Your task to perform on an android device: delete browsing data in the chrome app Image 0: 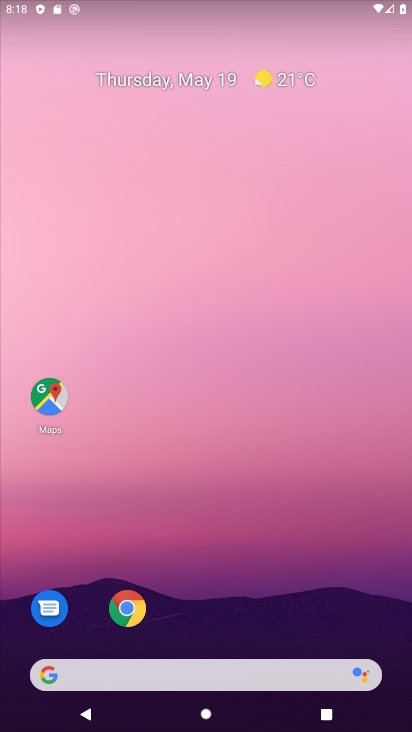
Step 0: click (127, 608)
Your task to perform on an android device: delete browsing data in the chrome app Image 1: 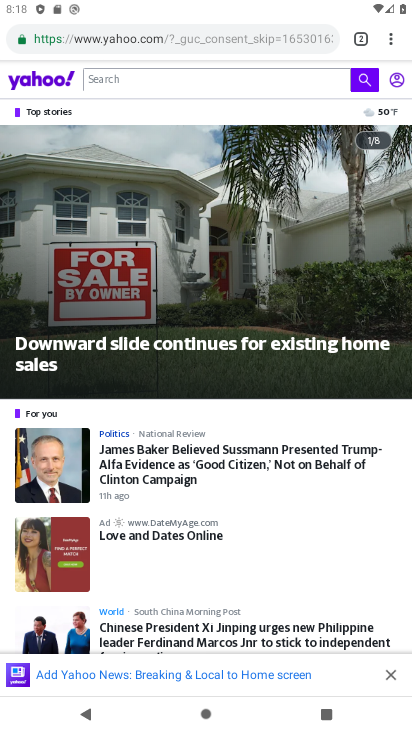
Step 1: click (393, 38)
Your task to perform on an android device: delete browsing data in the chrome app Image 2: 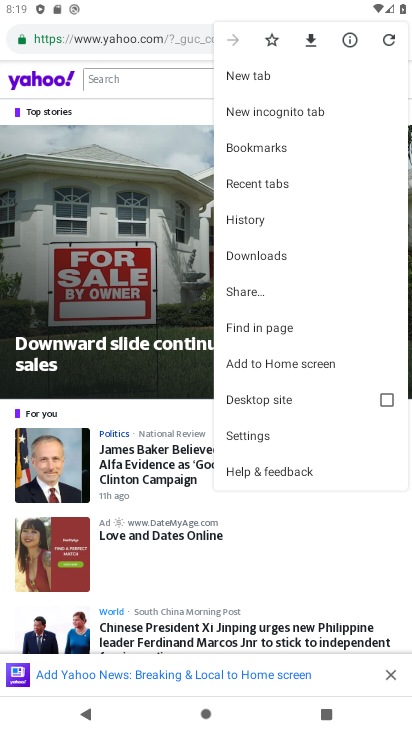
Step 2: click (251, 216)
Your task to perform on an android device: delete browsing data in the chrome app Image 3: 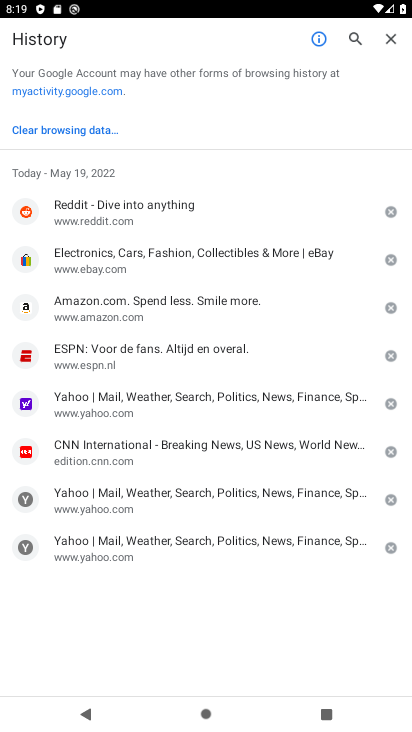
Step 3: click (80, 123)
Your task to perform on an android device: delete browsing data in the chrome app Image 4: 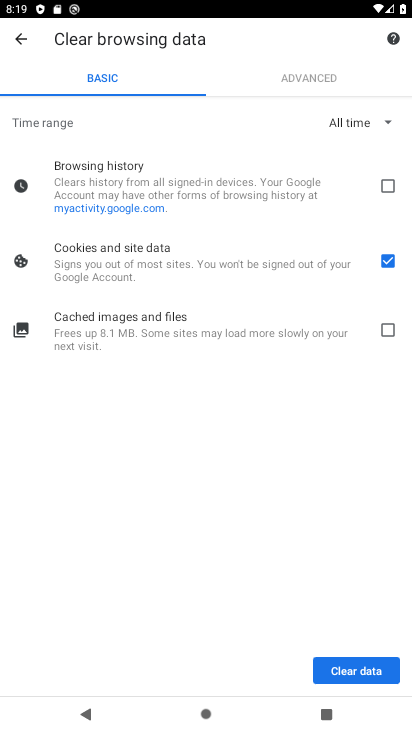
Step 4: click (352, 663)
Your task to perform on an android device: delete browsing data in the chrome app Image 5: 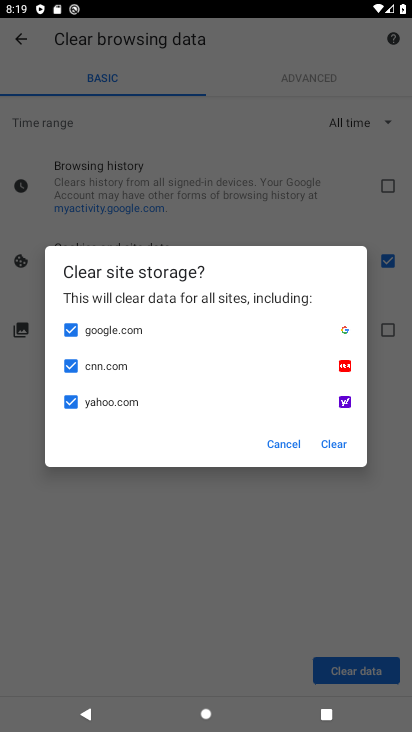
Step 5: click (335, 444)
Your task to perform on an android device: delete browsing data in the chrome app Image 6: 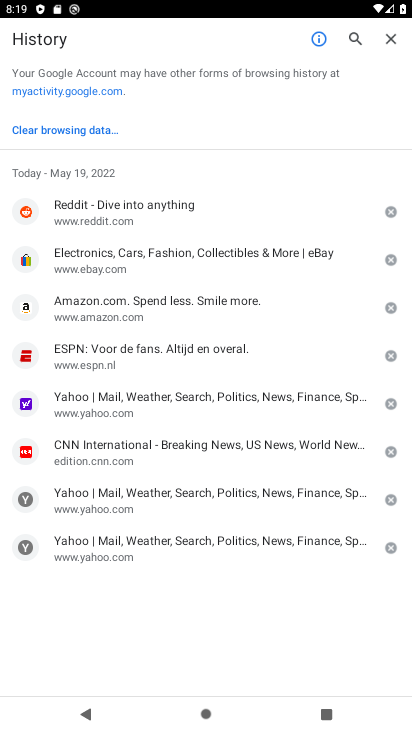
Step 6: task complete